Your task to perform on an android device: toggle location history Image 0: 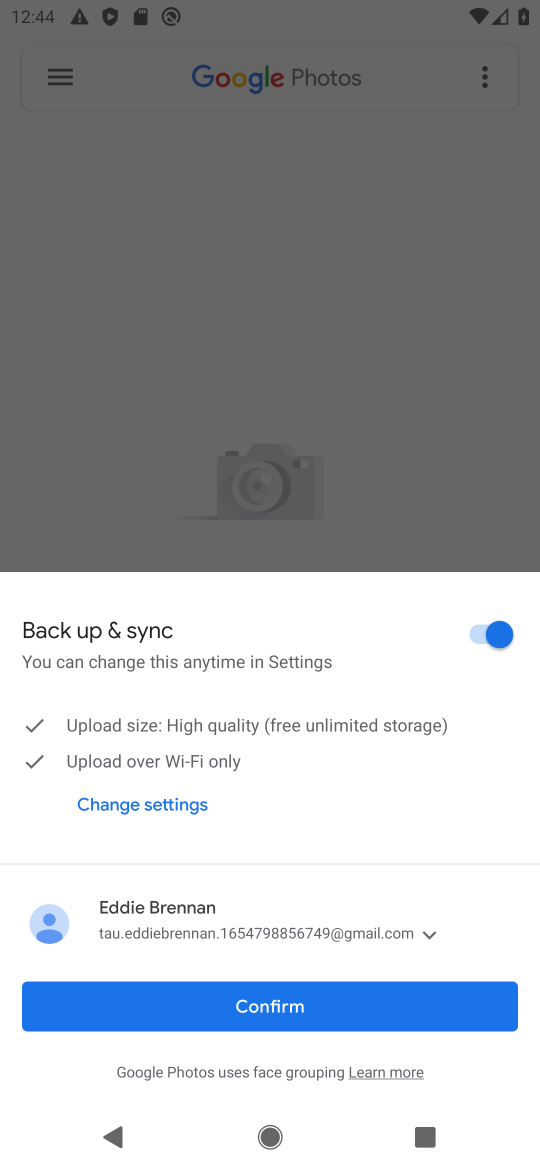
Step 0: press back button
Your task to perform on an android device: toggle location history Image 1: 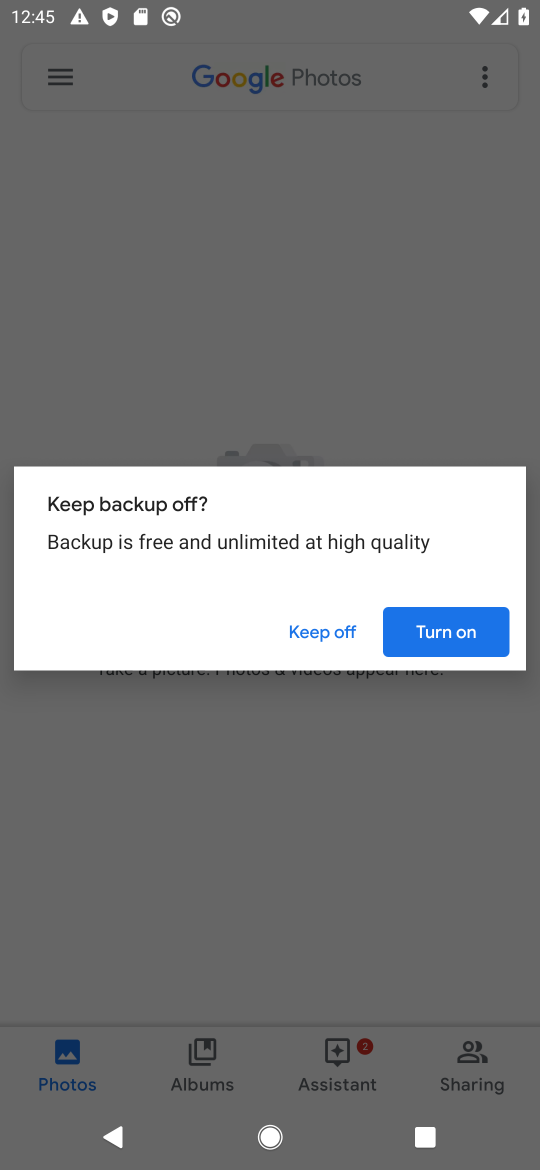
Step 1: press home button
Your task to perform on an android device: toggle location history Image 2: 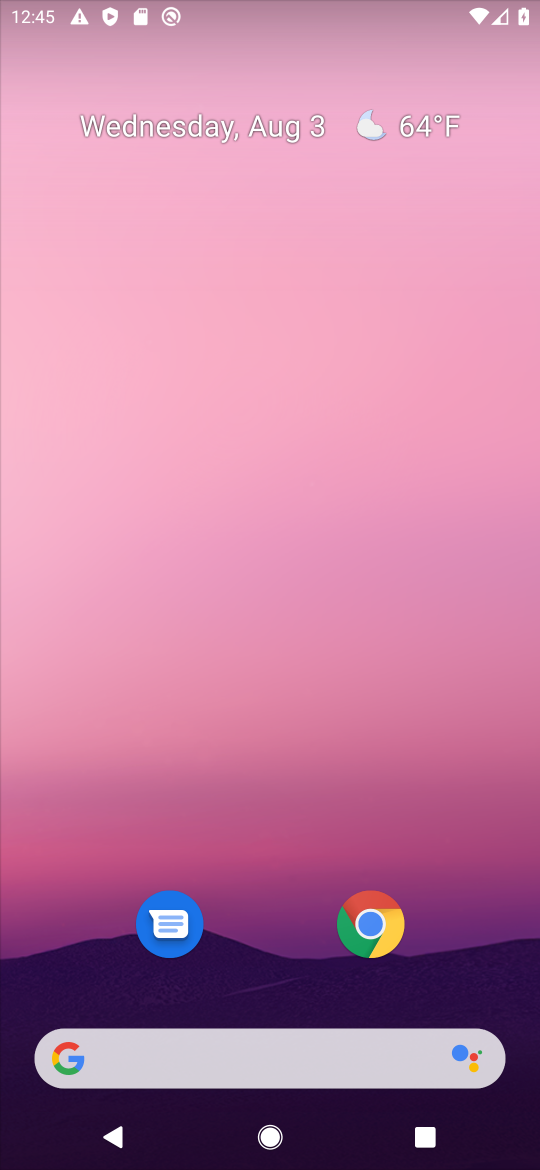
Step 2: drag from (253, 823) to (302, 79)
Your task to perform on an android device: toggle location history Image 3: 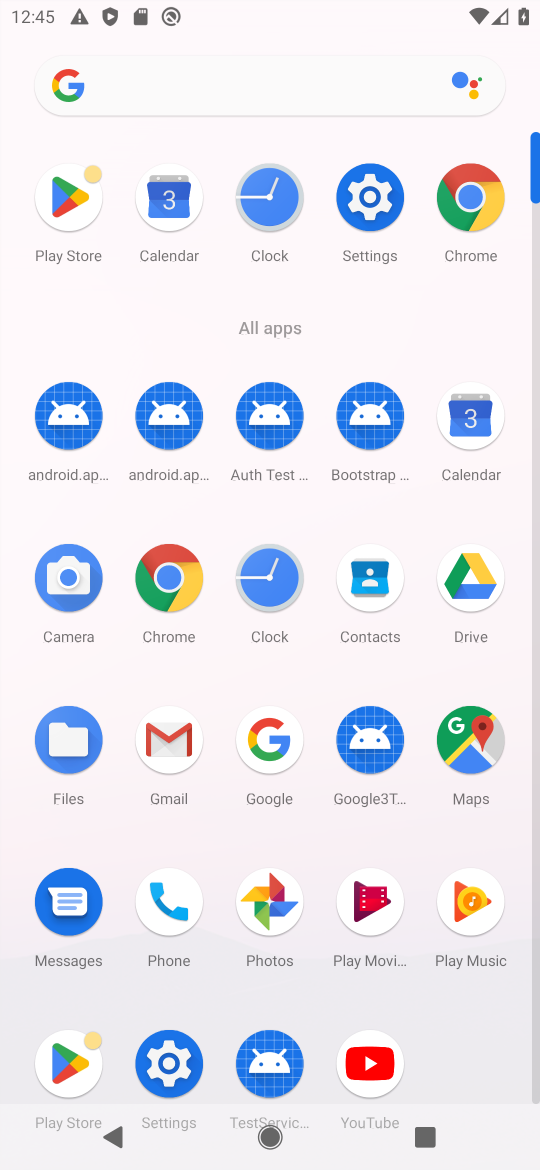
Step 3: click (379, 190)
Your task to perform on an android device: toggle location history Image 4: 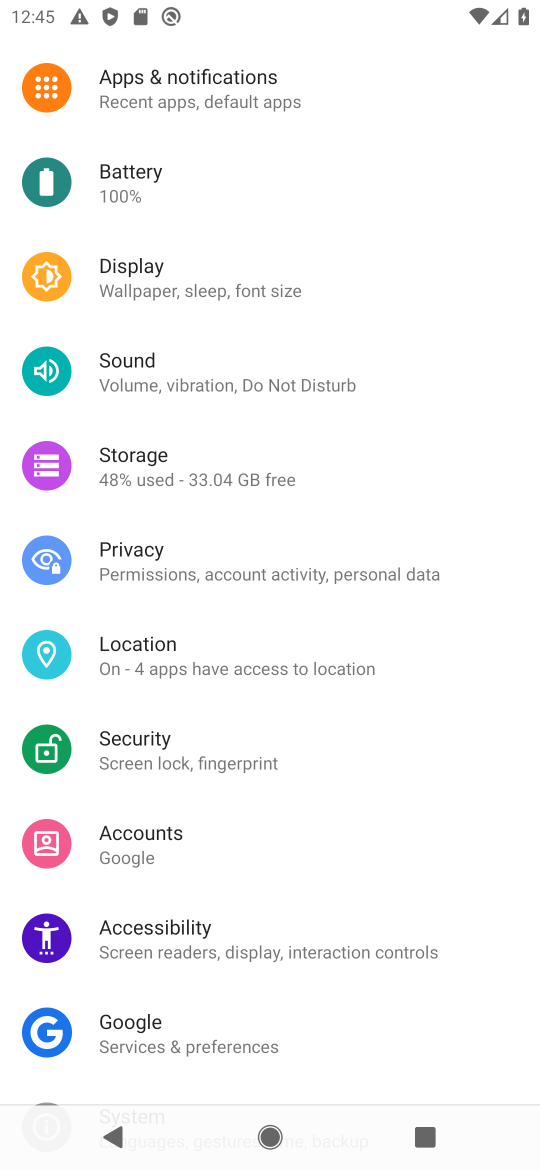
Step 4: click (137, 657)
Your task to perform on an android device: toggle location history Image 5: 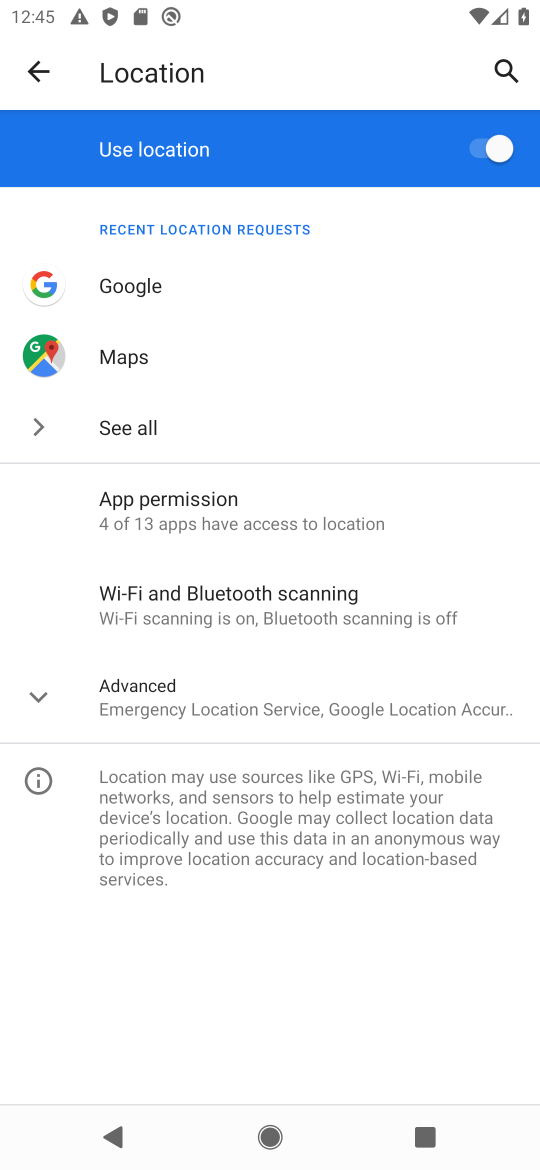
Step 5: click (184, 710)
Your task to perform on an android device: toggle location history Image 6: 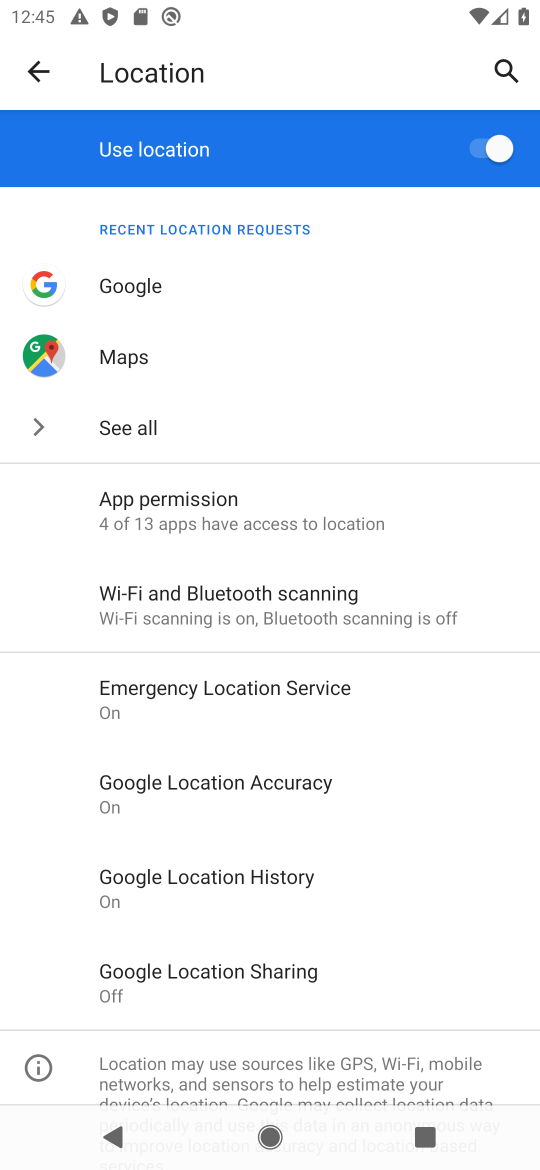
Step 6: click (226, 883)
Your task to perform on an android device: toggle location history Image 7: 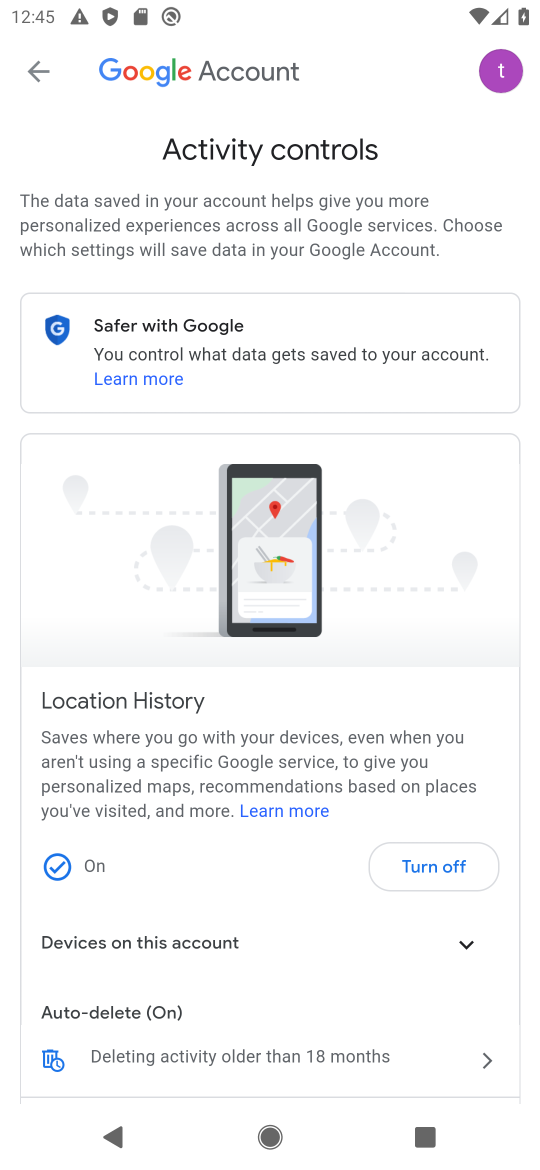
Step 7: click (466, 856)
Your task to perform on an android device: toggle location history Image 8: 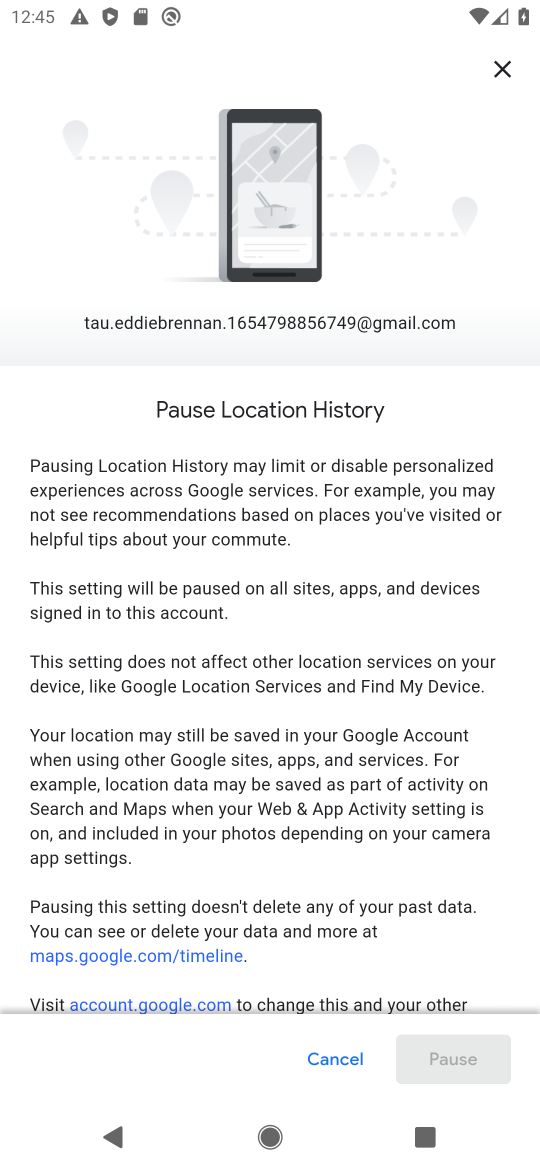
Step 8: drag from (340, 861) to (370, 175)
Your task to perform on an android device: toggle location history Image 9: 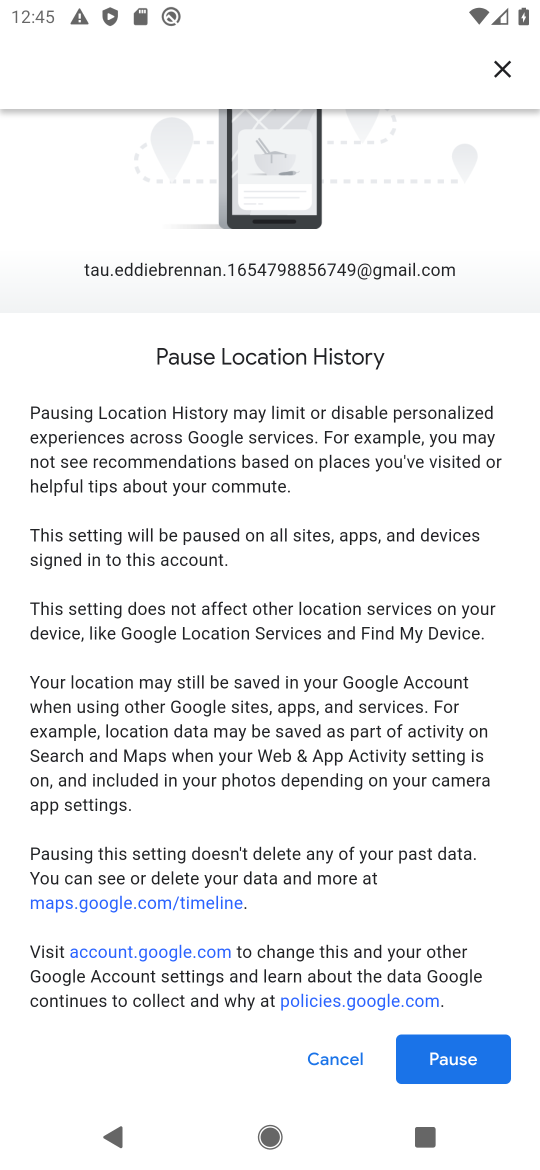
Step 9: click (446, 1055)
Your task to perform on an android device: toggle location history Image 10: 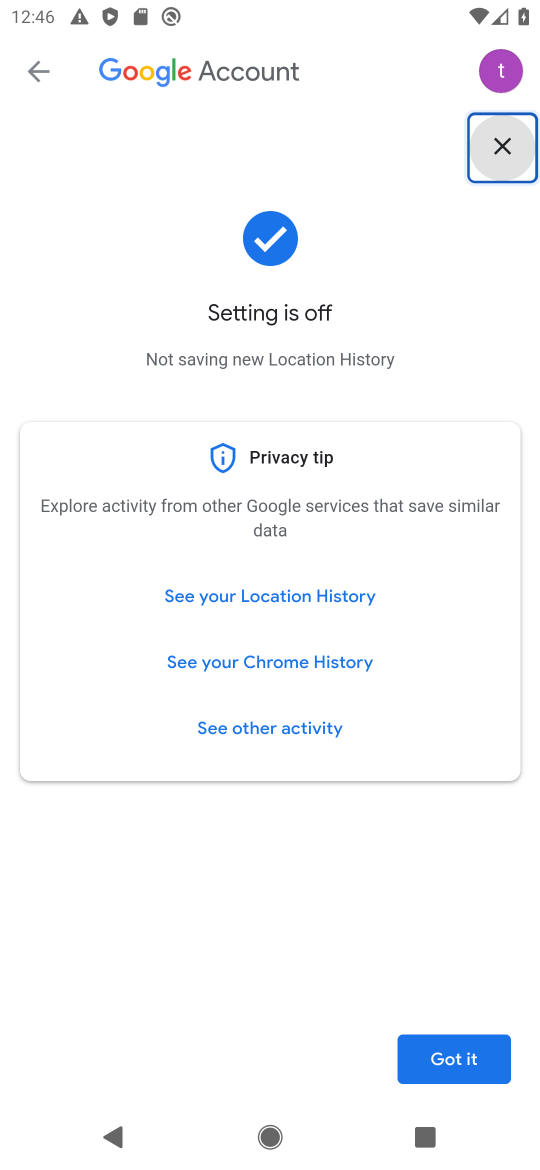
Step 10: click (484, 1072)
Your task to perform on an android device: toggle location history Image 11: 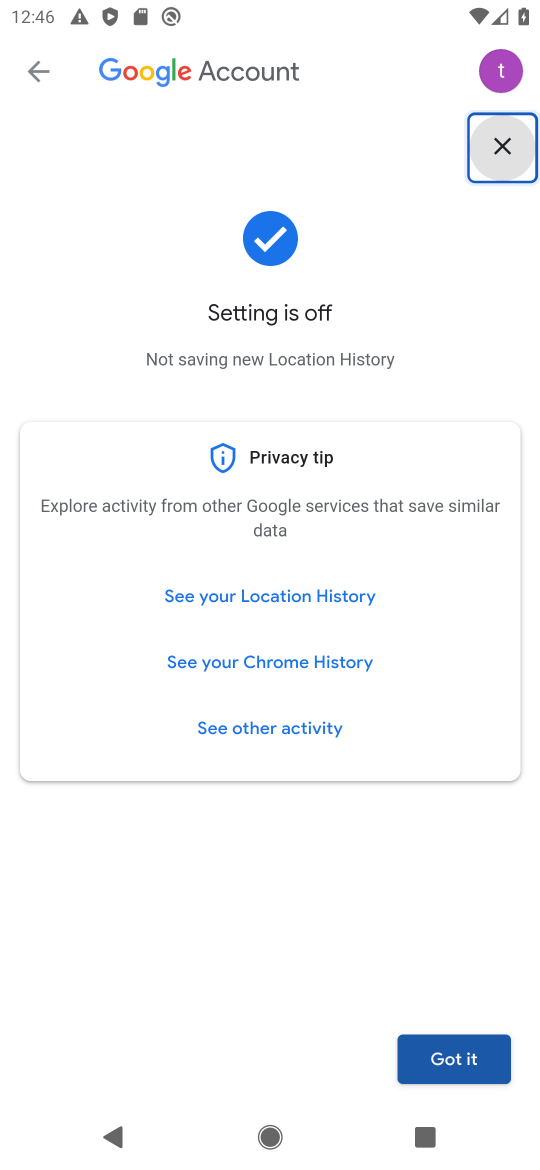
Step 11: task complete